Your task to perform on an android device: Search for razer blade on bestbuy.com, select the first entry, and add it to the cart. Image 0: 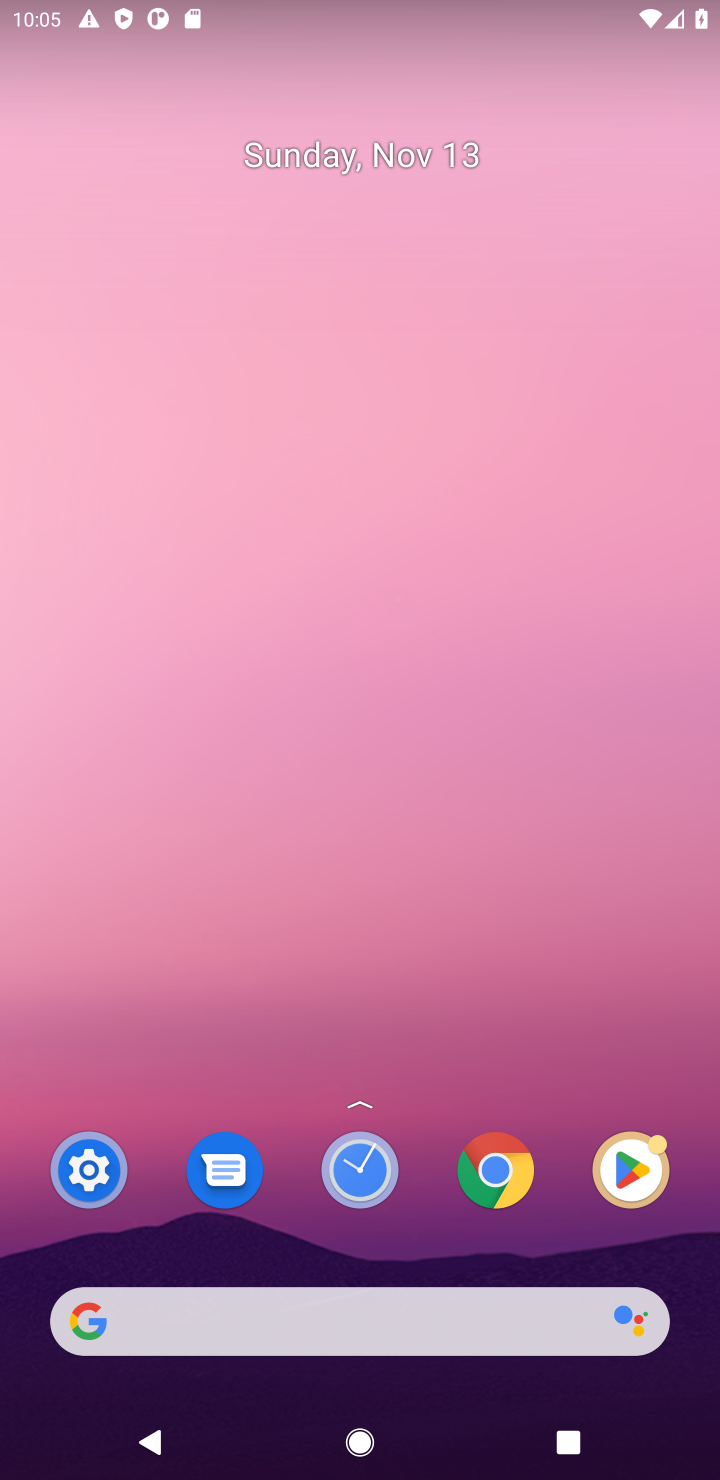
Step 0: click (478, 1308)
Your task to perform on an android device: Search for razer blade on bestbuy.com, select the first entry, and add it to the cart. Image 1: 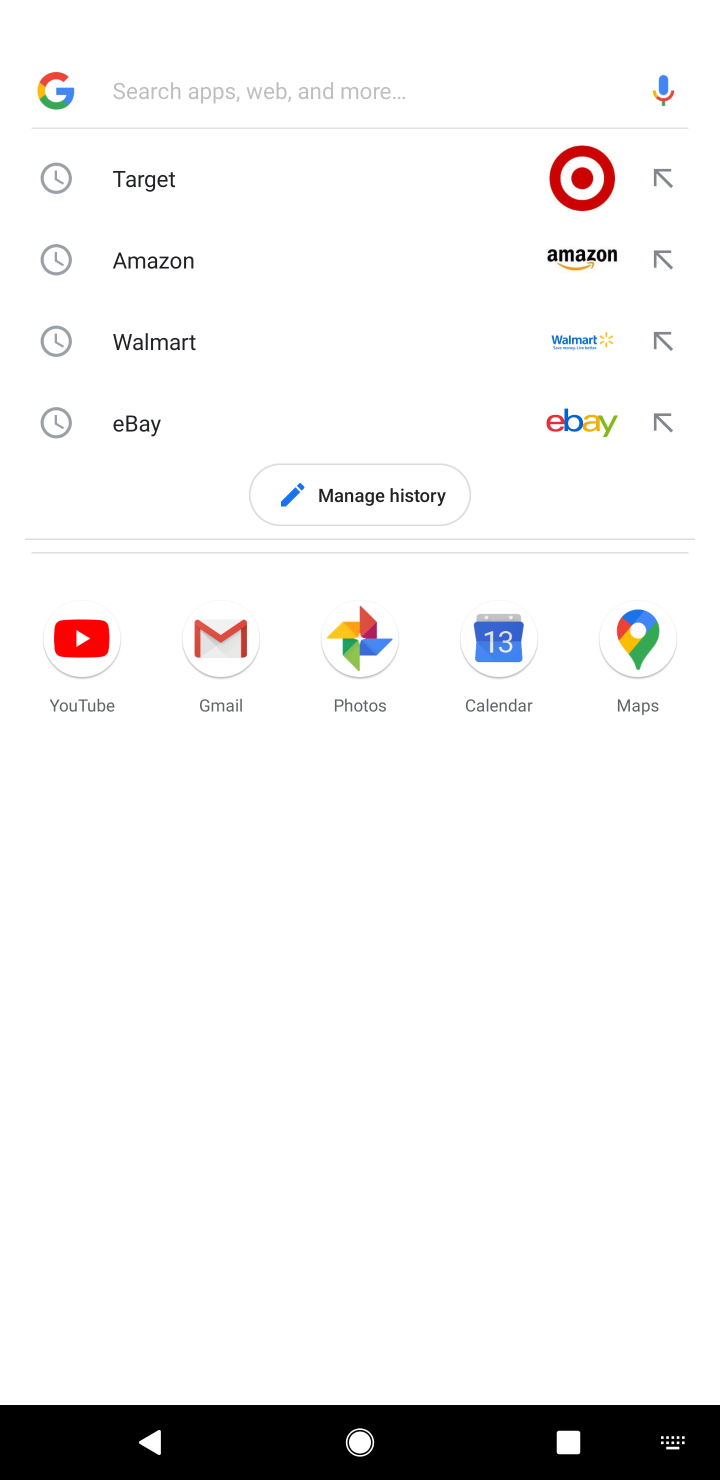
Step 1: type "bestbuy.com"
Your task to perform on an android device: Search for razer blade on bestbuy.com, select the first entry, and add it to the cart. Image 2: 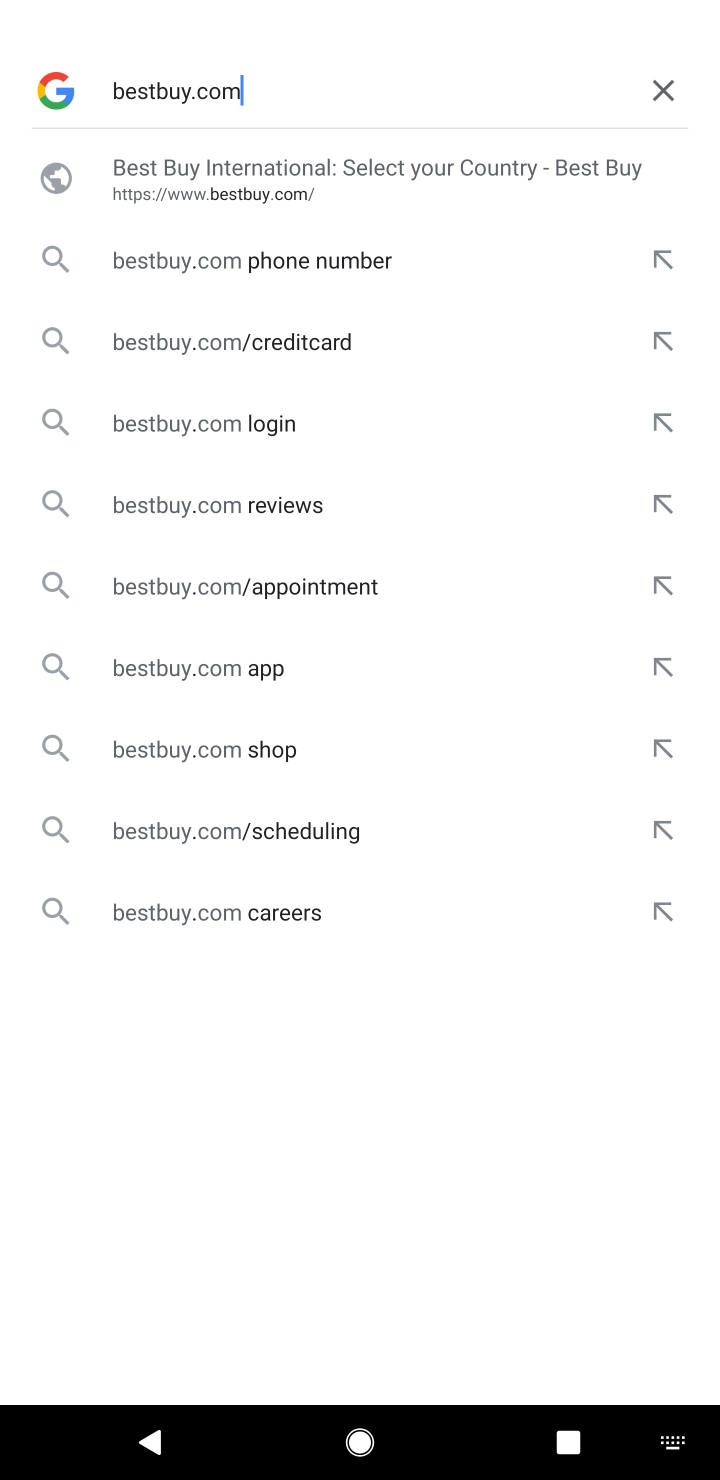
Step 2: click (228, 191)
Your task to perform on an android device: Search for razer blade on bestbuy.com, select the first entry, and add it to the cart. Image 3: 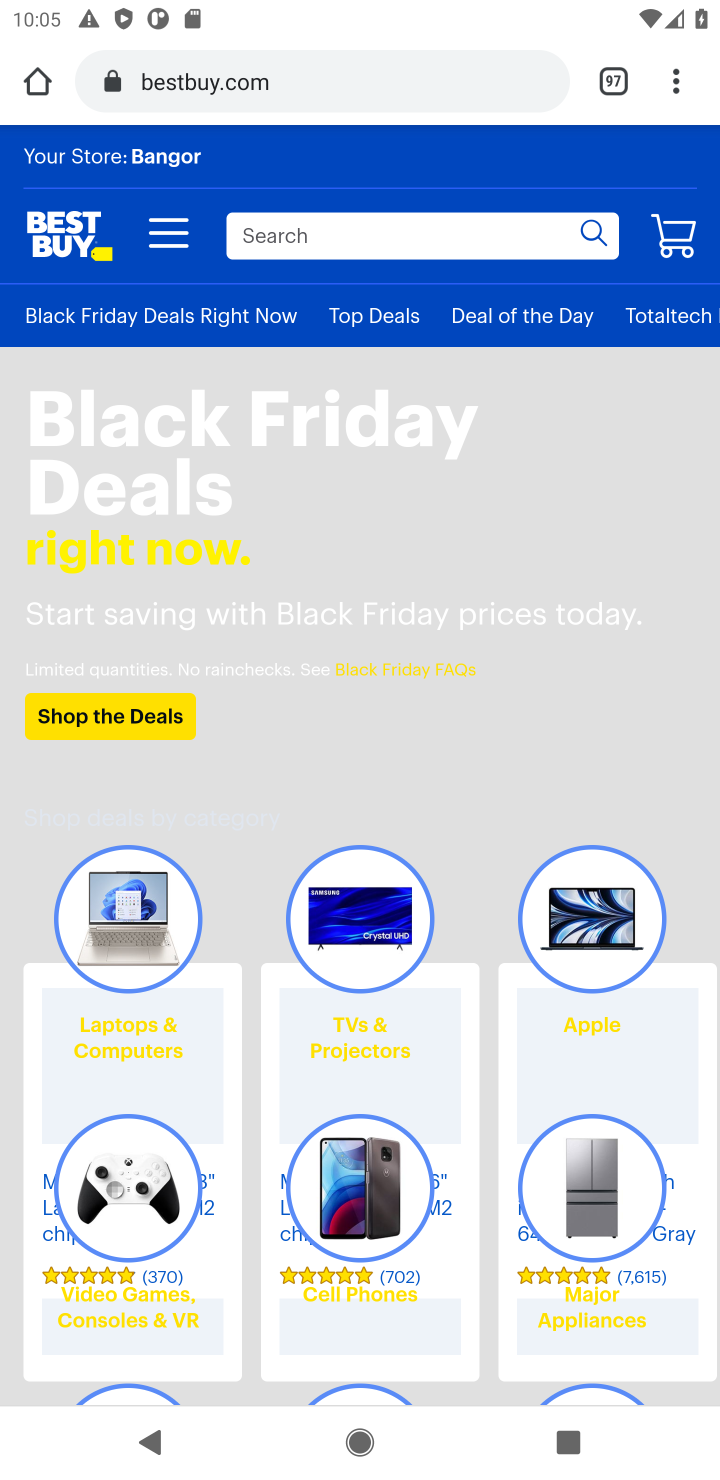
Step 3: task complete